Your task to perform on an android device: remove spam from my inbox in the gmail app Image 0: 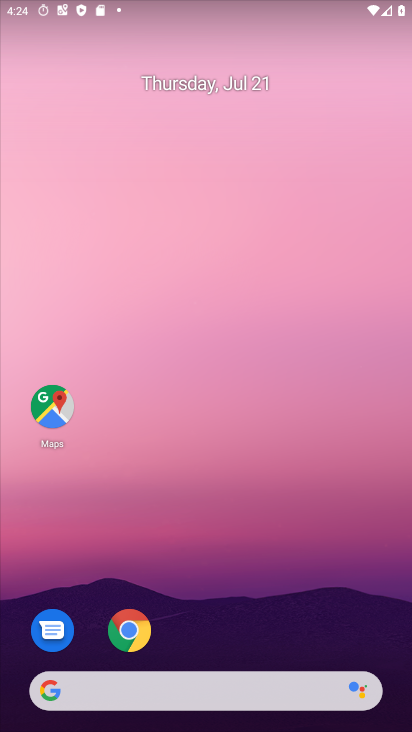
Step 0: drag from (230, 694) to (282, 59)
Your task to perform on an android device: remove spam from my inbox in the gmail app Image 1: 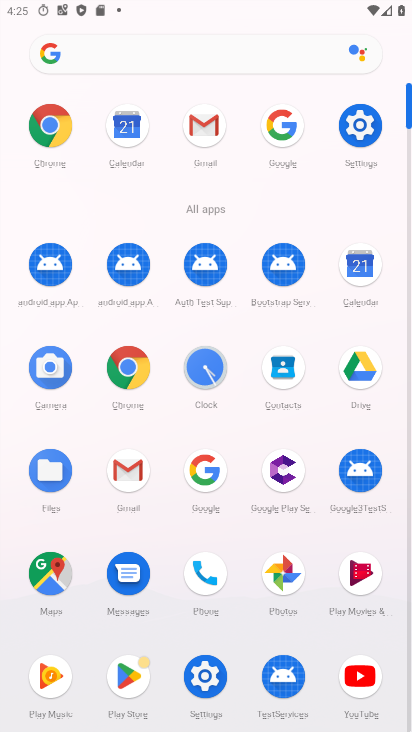
Step 1: click (204, 124)
Your task to perform on an android device: remove spam from my inbox in the gmail app Image 2: 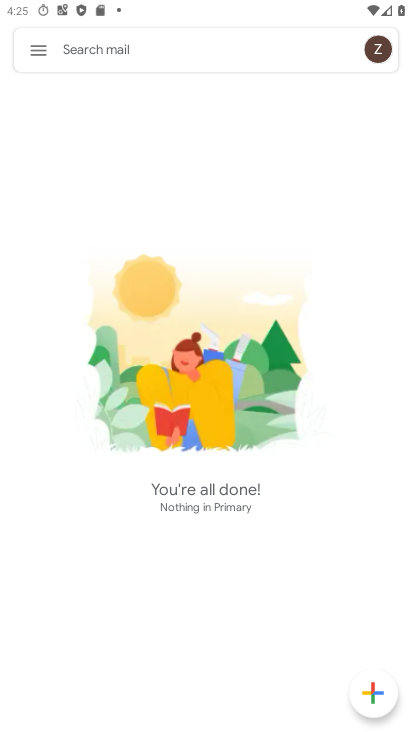
Step 2: click (40, 45)
Your task to perform on an android device: remove spam from my inbox in the gmail app Image 3: 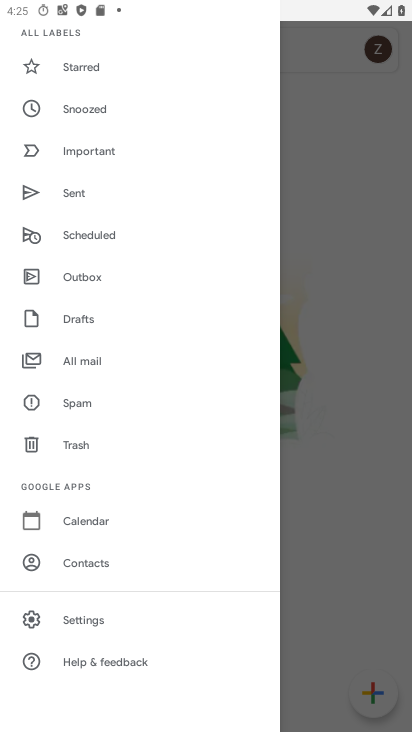
Step 3: click (76, 403)
Your task to perform on an android device: remove spam from my inbox in the gmail app Image 4: 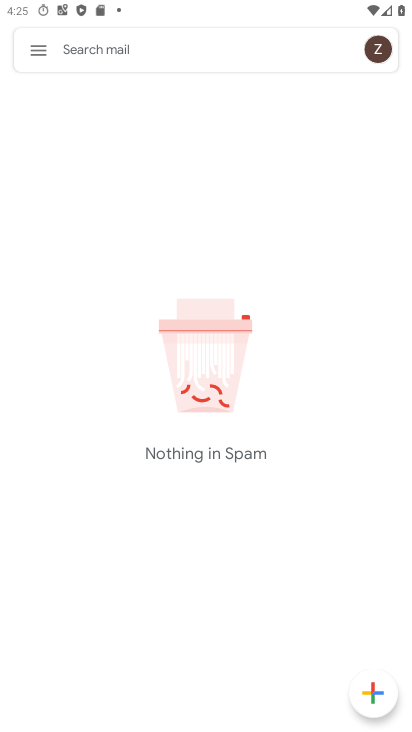
Step 4: task complete